Your task to perform on an android device: Add "lenovo thinkpad" to the cart on bestbuy.com Image 0: 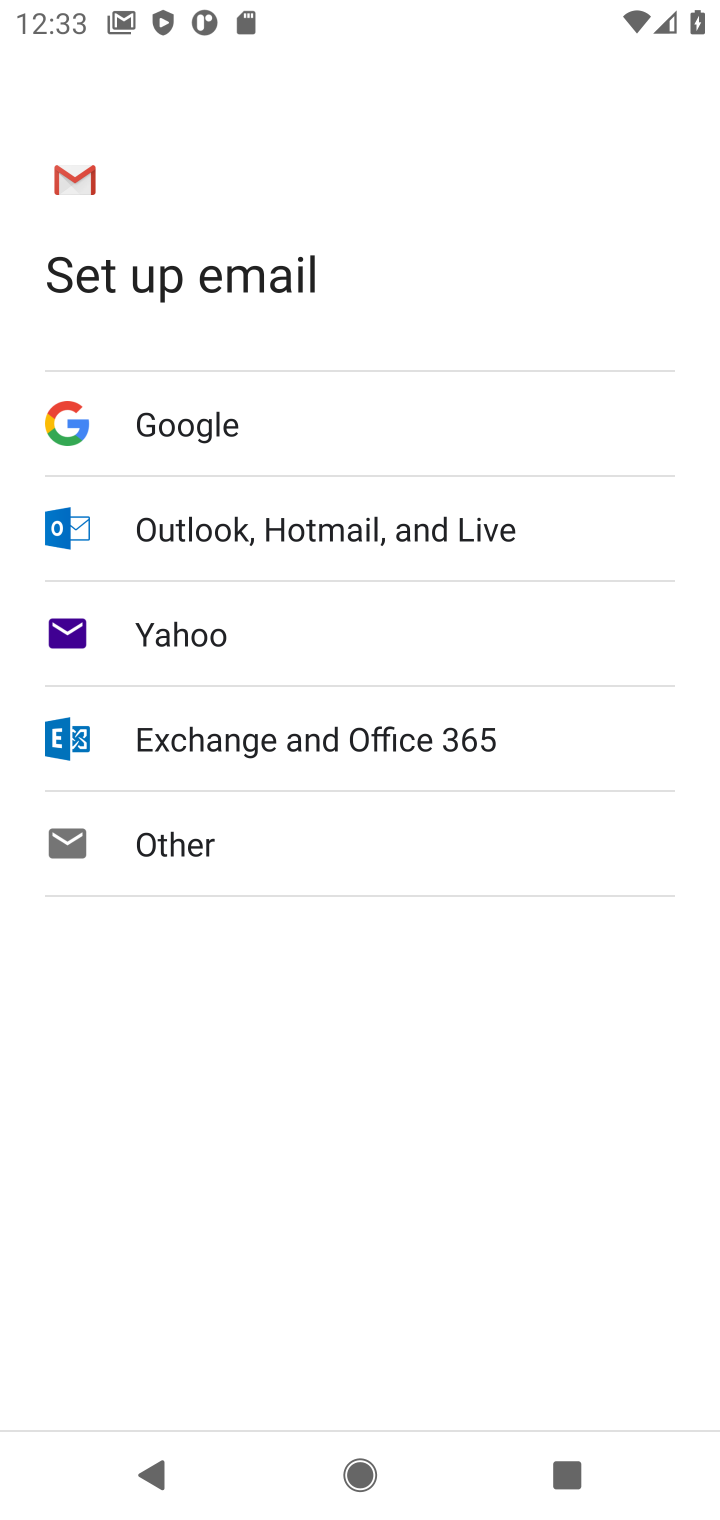
Step 0: press home button
Your task to perform on an android device: Add "lenovo thinkpad" to the cart on bestbuy.com Image 1: 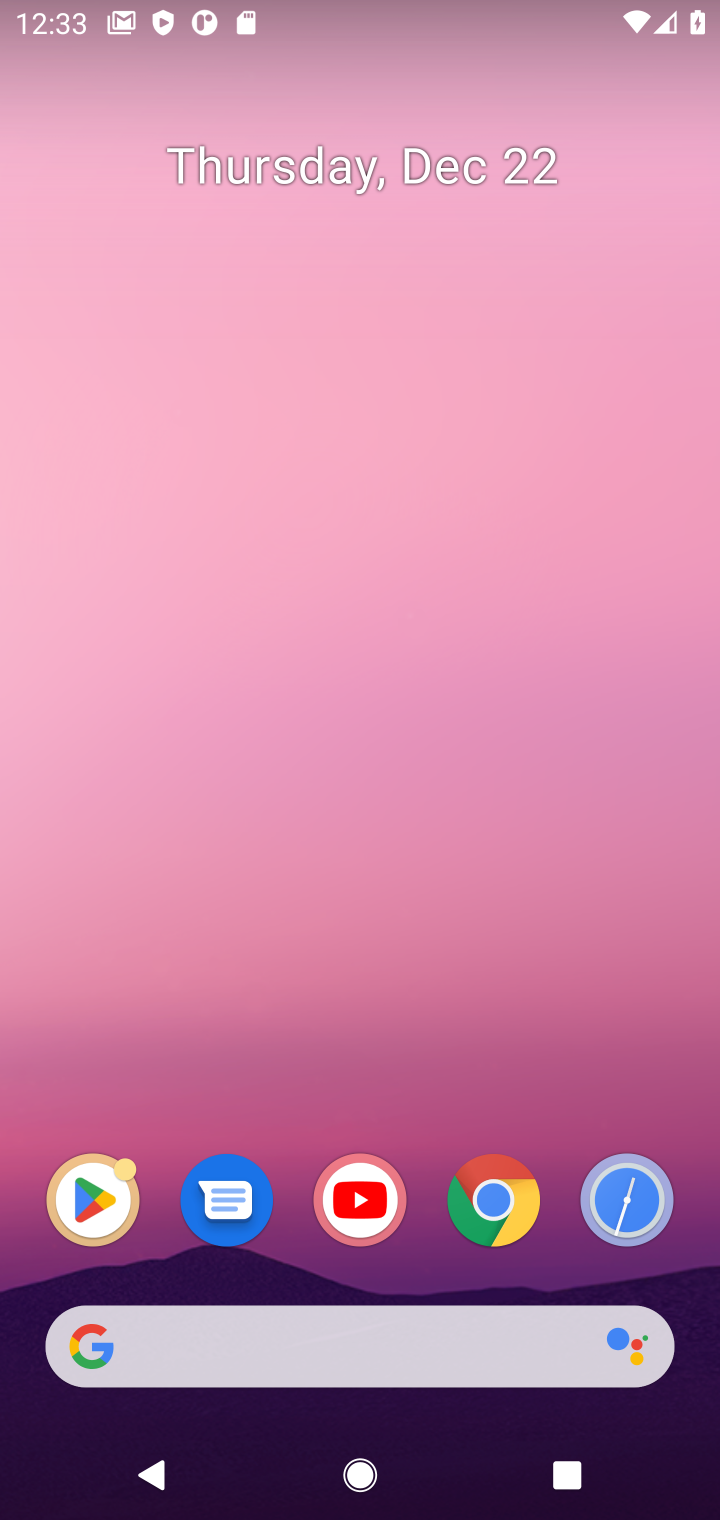
Step 1: click (504, 1201)
Your task to perform on an android device: Add "lenovo thinkpad" to the cart on bestbuy.com Image 2: 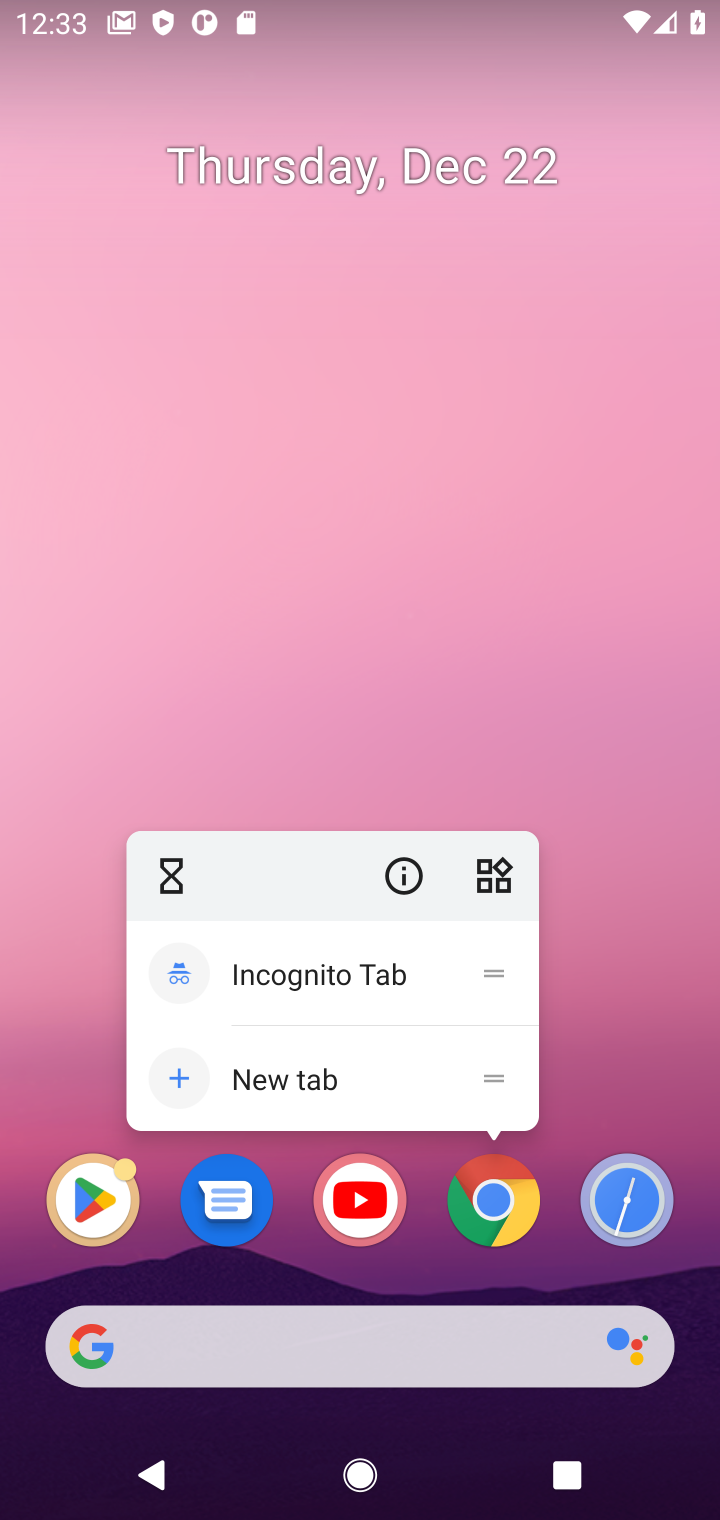
Step 2: click (501, 1216)
Your task to perform on an android device: Add "lenovo thinkpad" to the cart on bestbuy.com Image 3: 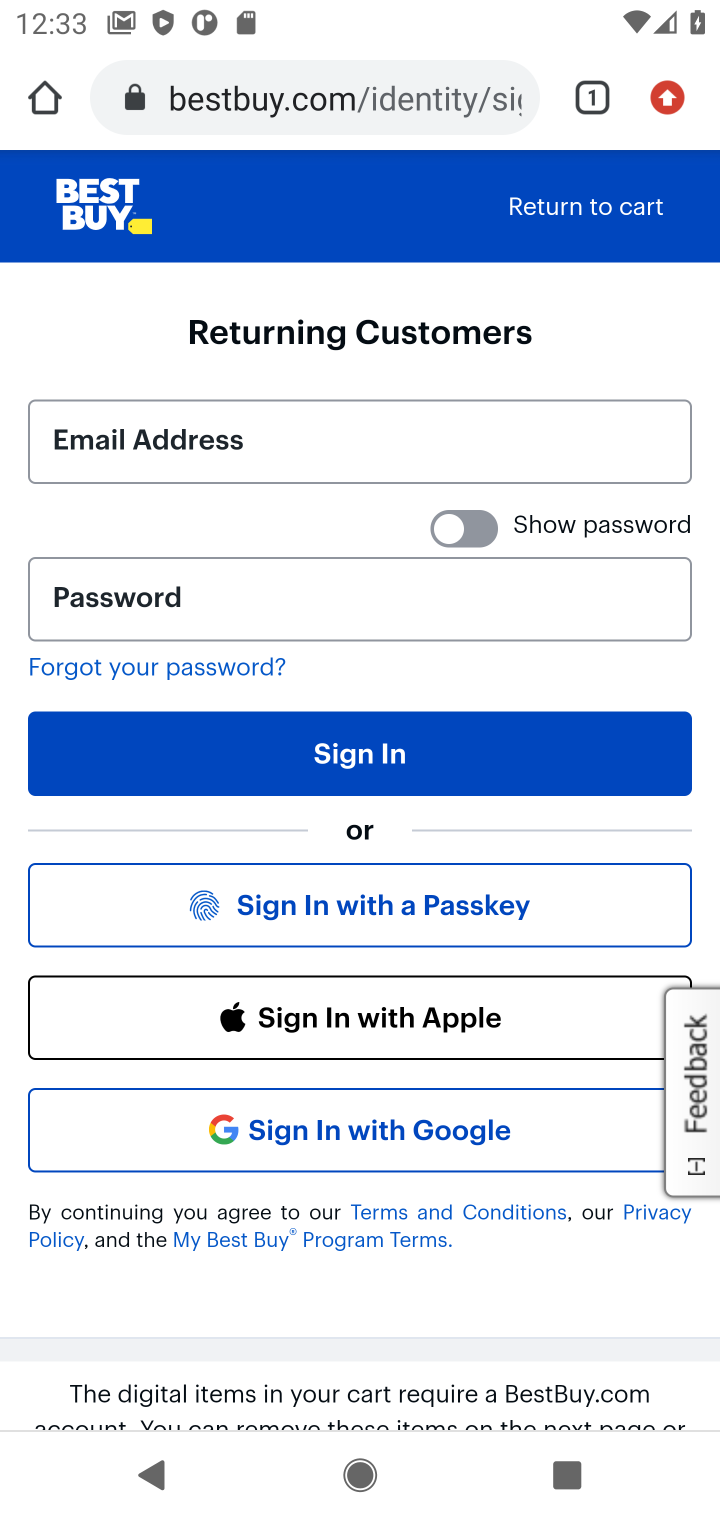
Step 3: press back button
Your task to perform on an android device: Add "lenovo thinkpad" to the cart on bestbuy.com Image 4: 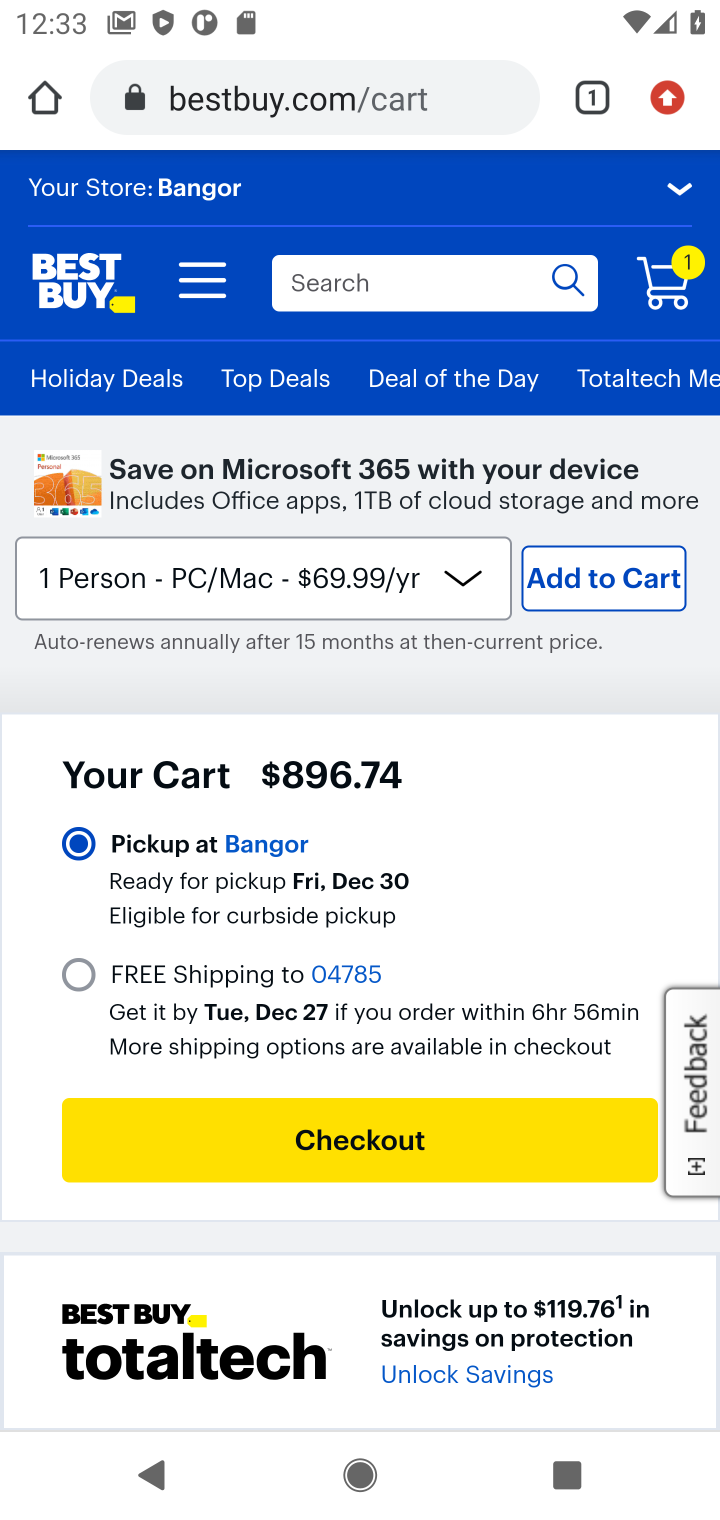
Step 4: click (342, 289)
Your task to perform on an android device: Add "lenovo thinkpad" to the cart on bestbuy.com Image 5: 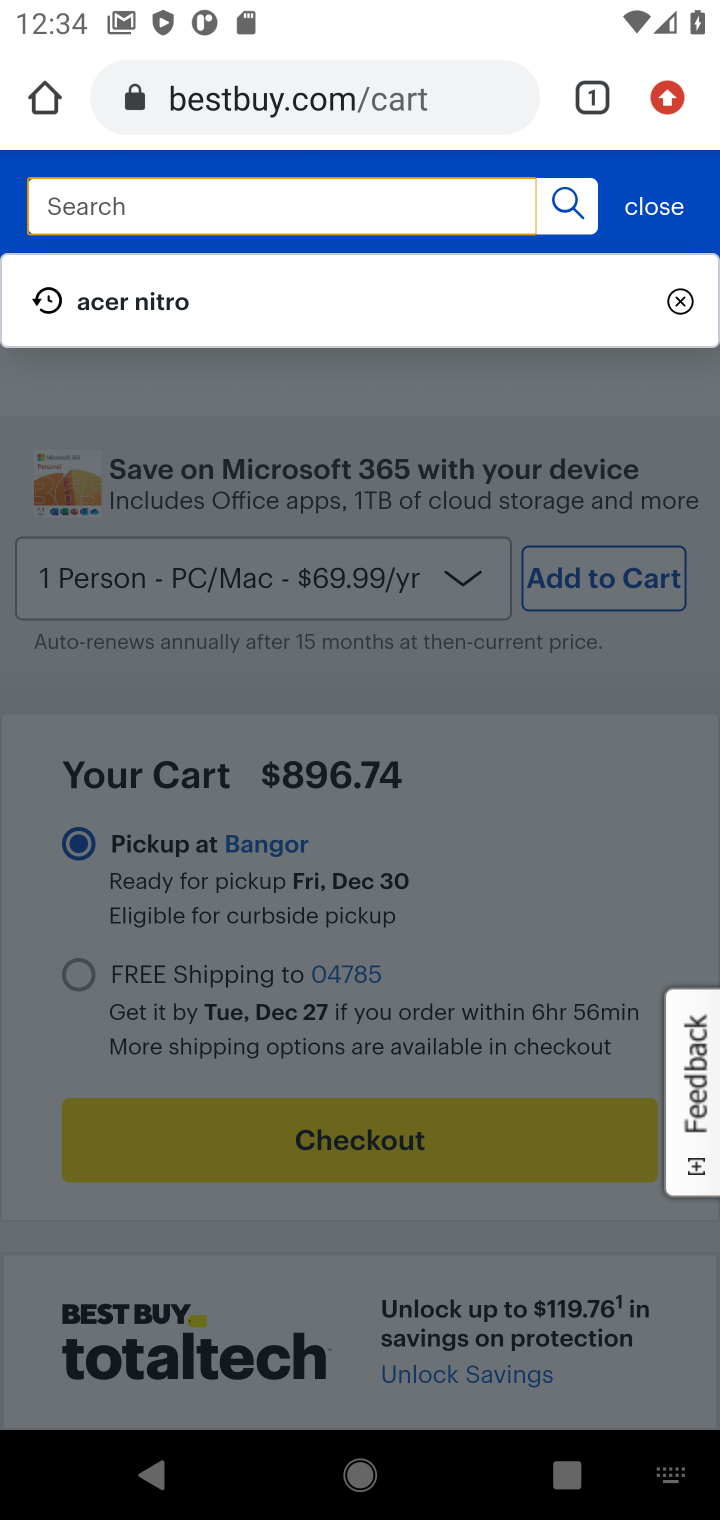
Step 5: type "lenovo thinkpad"
Your task to perform on an android device: Add "lenovo thinkpad" to the cart on bestbuy.com Image 6: 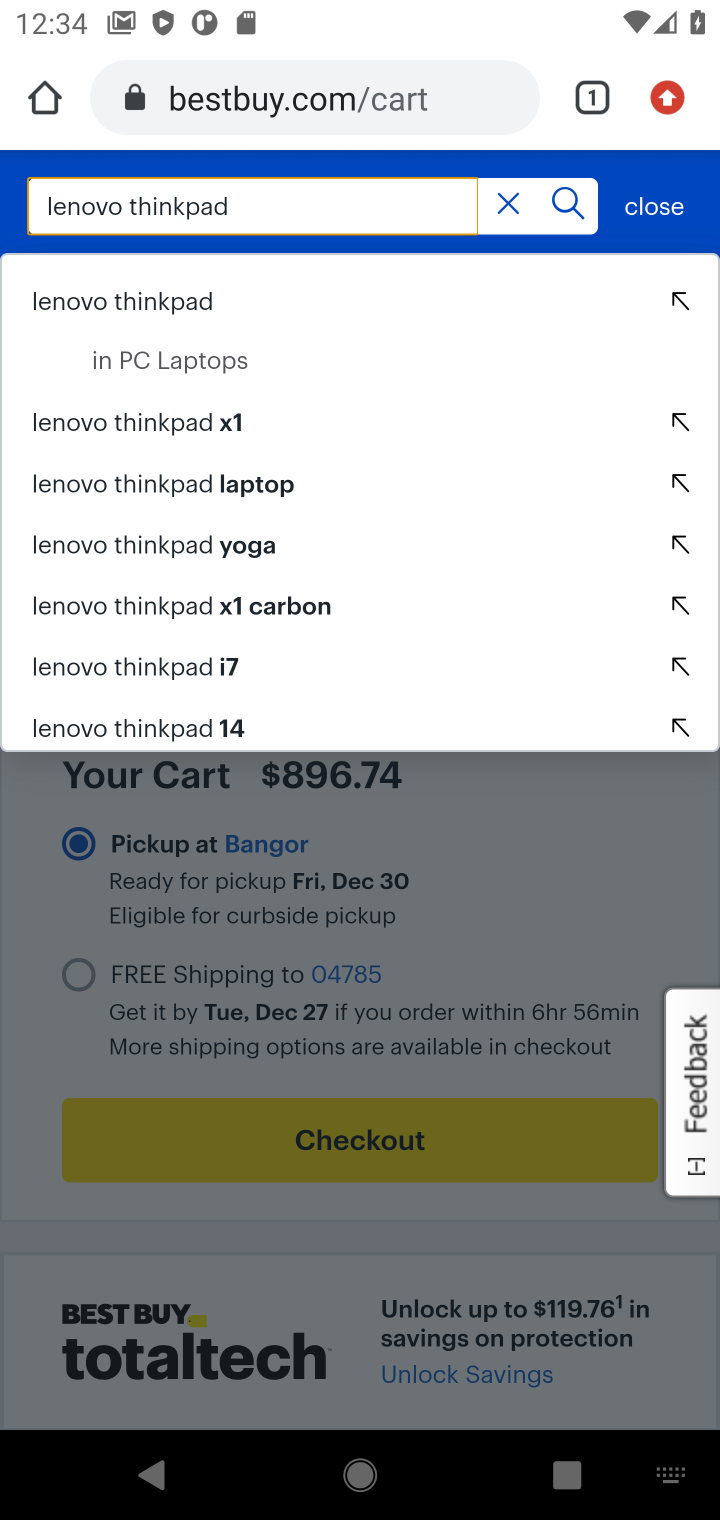
Step 6: click (93, 297)
Your task to perform on an android device: Add "lenovo thinkpad" to the cart on bestbuy.com Image 7: 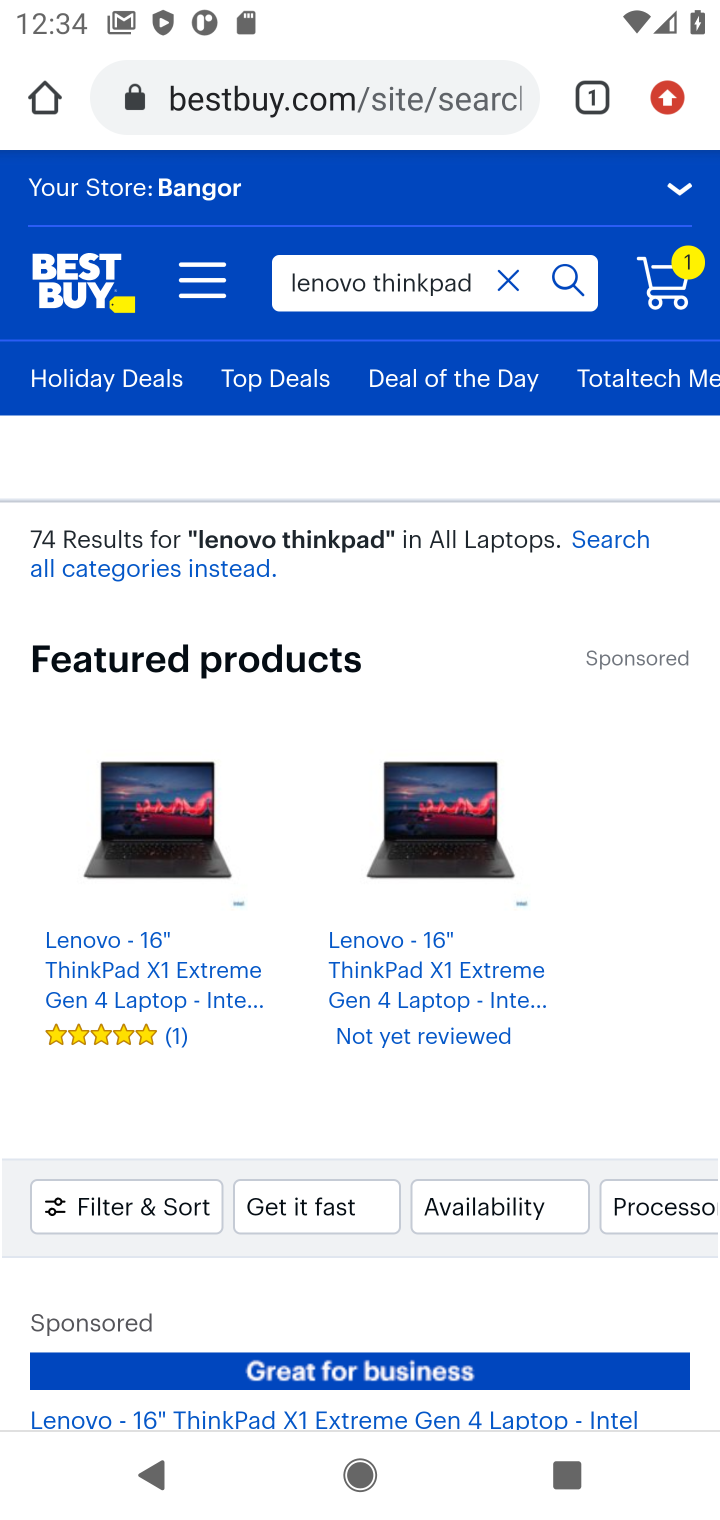
Step 7: drag from (334, 1034) to (354, 366)
Your task to perform on an android device: Add "lenovo thinkpad" to the cart on bestbuy.com Image 8: 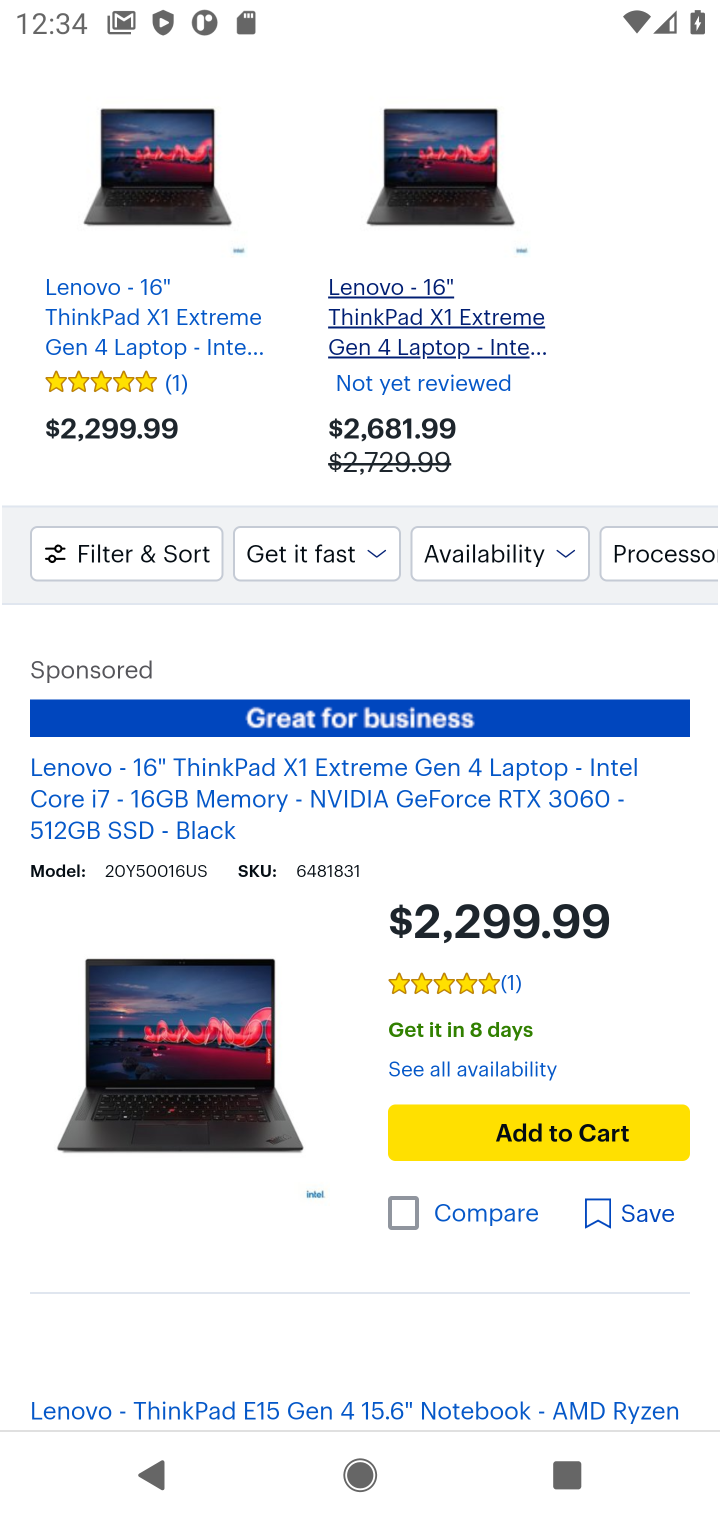
Step 8: drag from (350, 1009) to (385, 579)
Your task to perform on an android device: Add "lenovo thinkpad" to the cart on bestbuy.com Image 9: 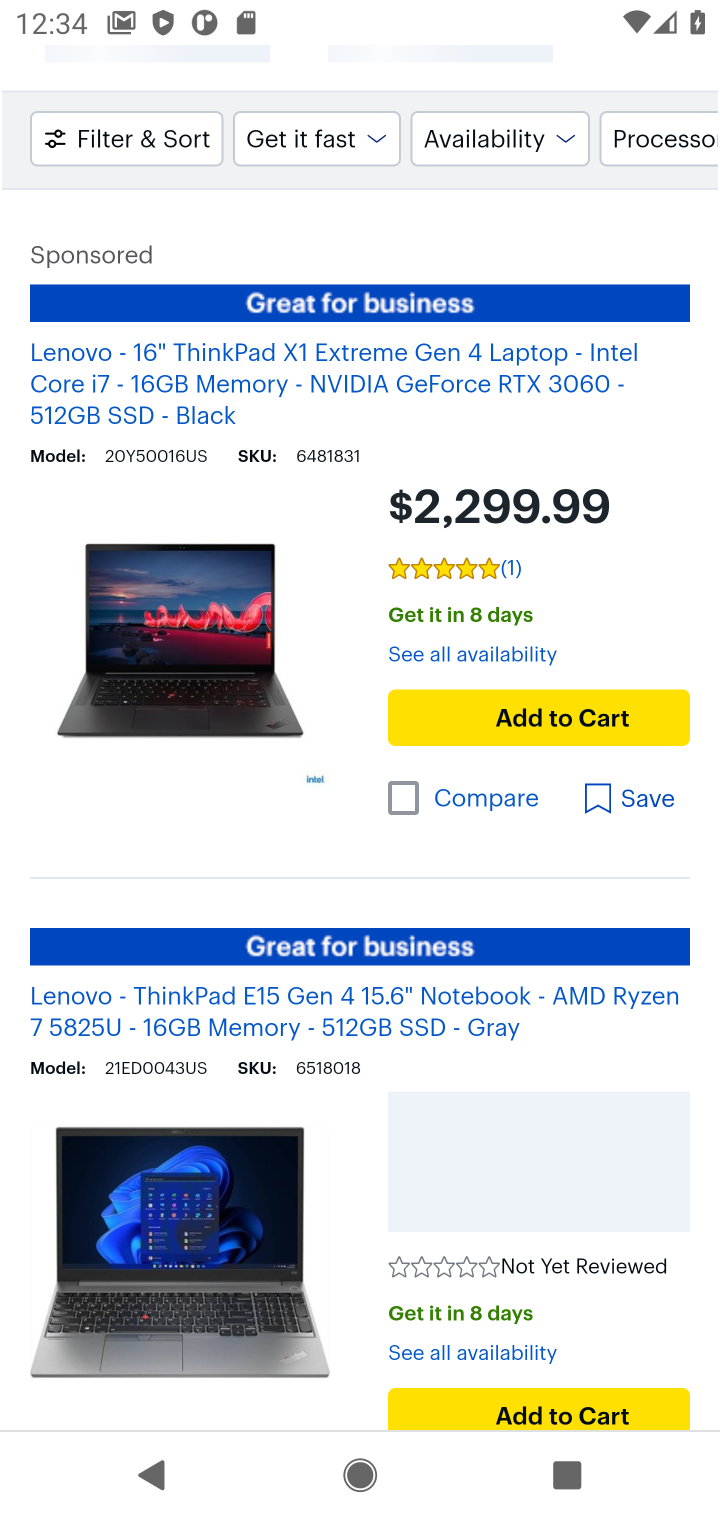
Step 9: click (513, 710)
Your task to perform on an android device: Add "lenovo thinkpad" to the cart on bestbuy.com Image 10: 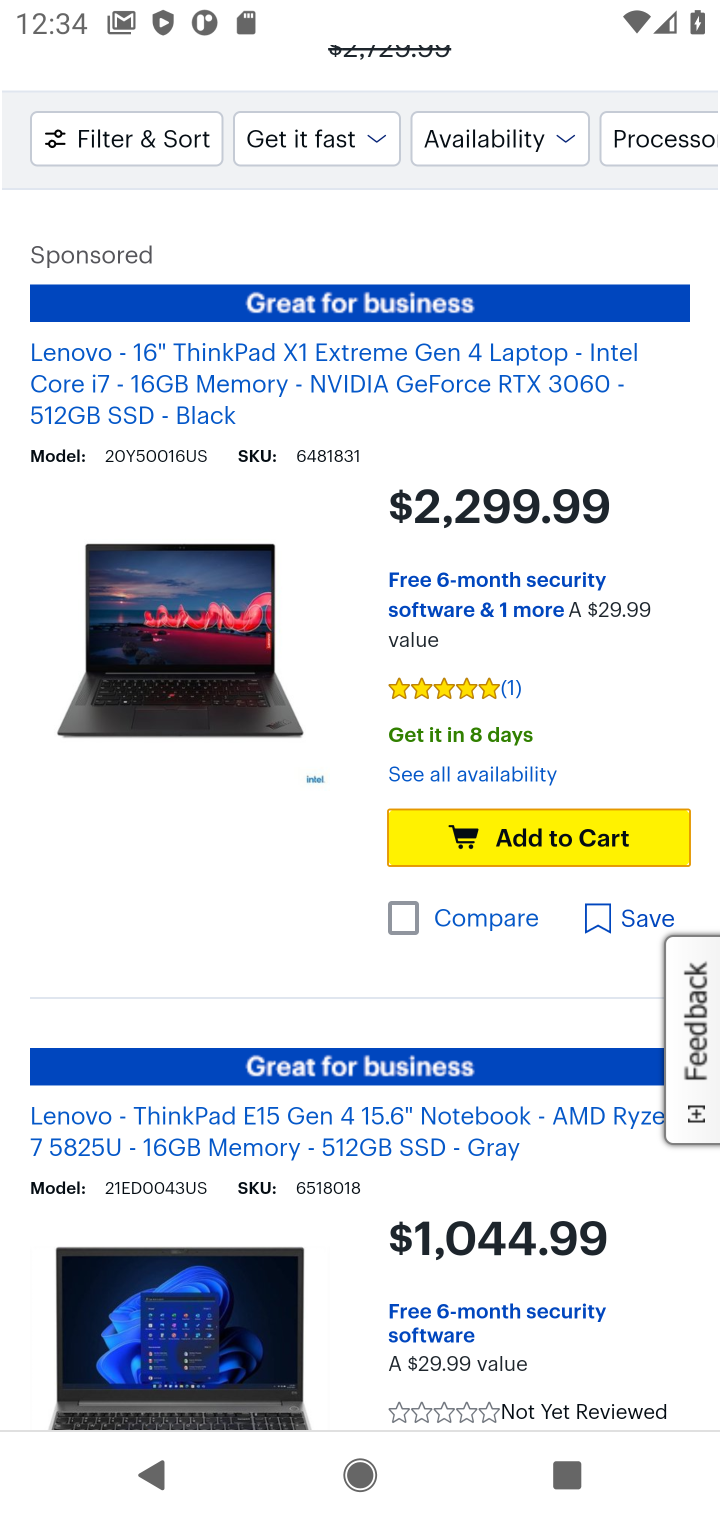
Step 10: click (519, 829)
Your task to perform on an android device: Add "lenovo thinkpad" to the cart on bestbuy.com Image 11: 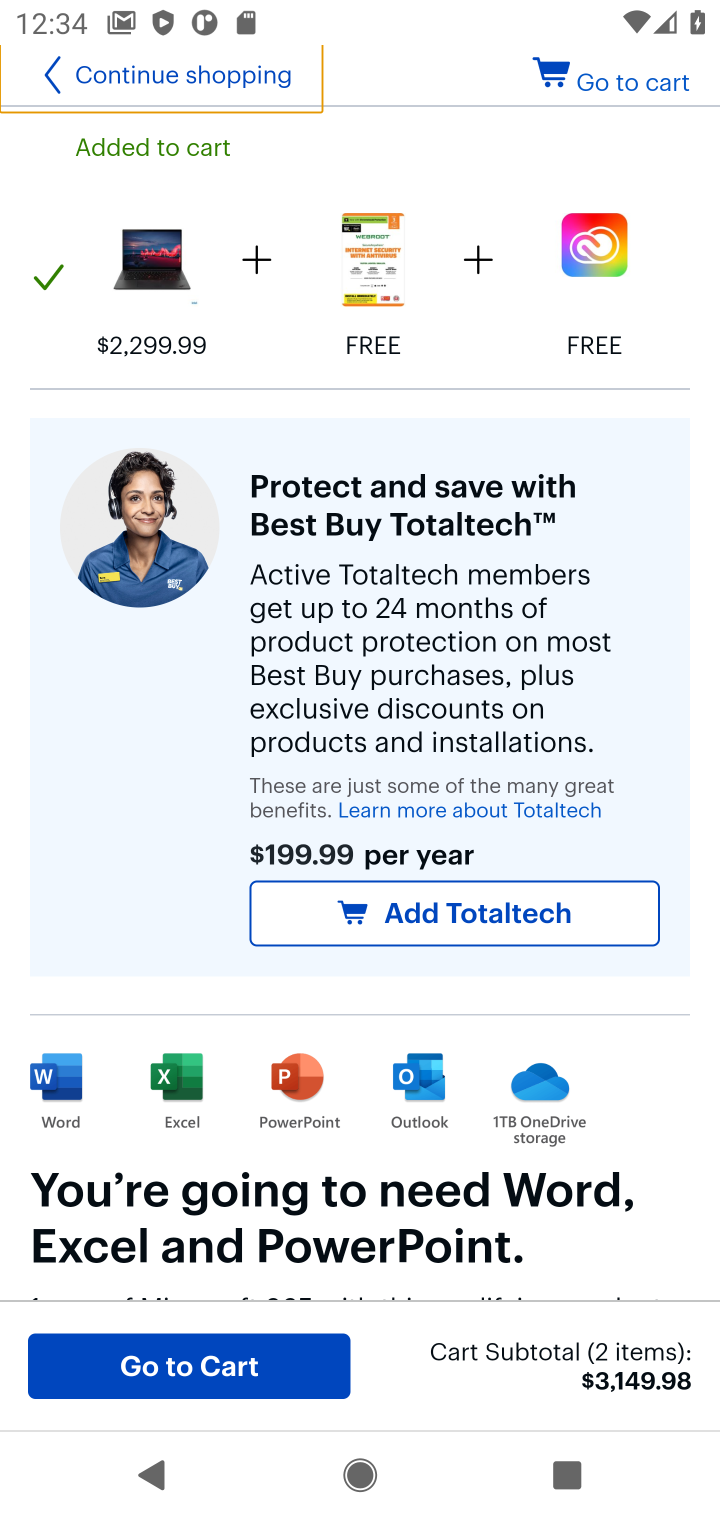
Step 11: task complete